Your task to perform on an android device: Go to battery settings Image 0: 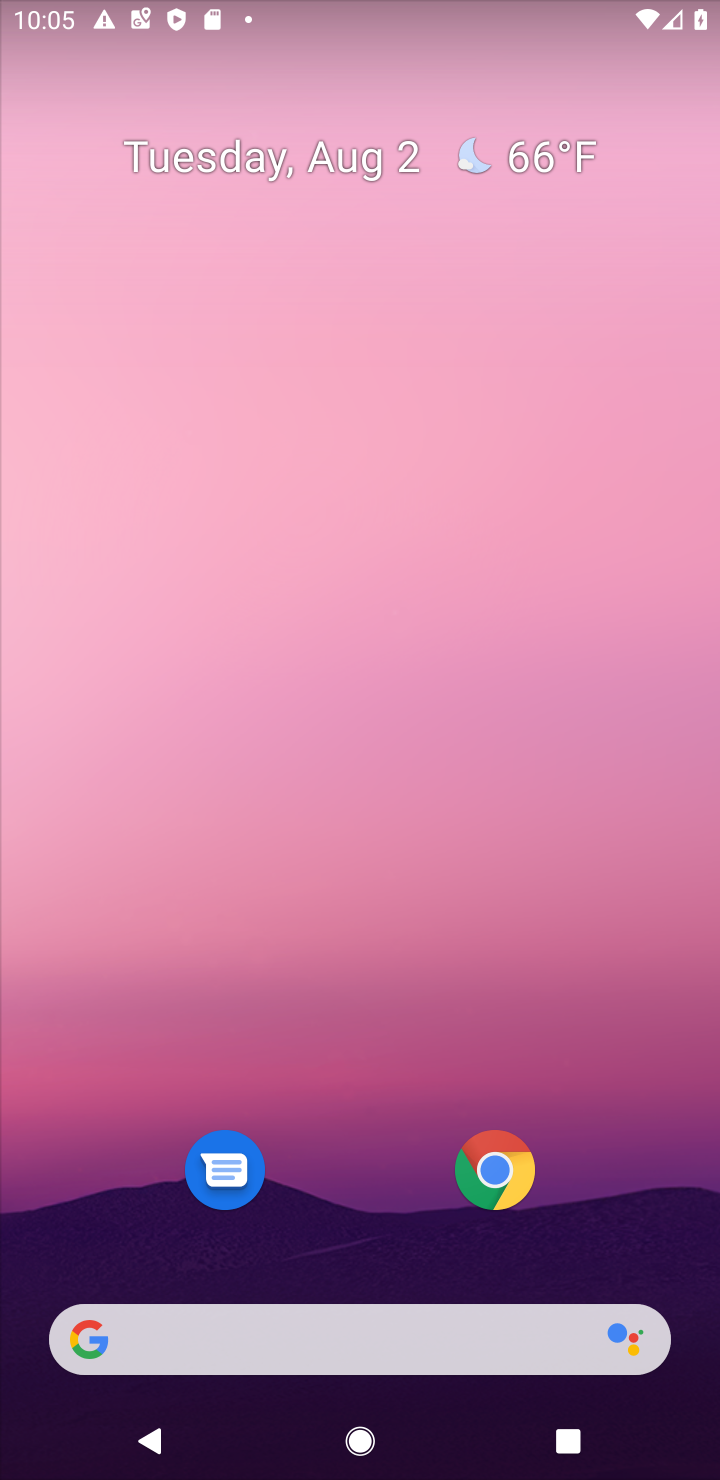
Step 0: drag from (312, 1198) to (322, 479)
Your task to perform on an android device: Go to battery settings Image 1: 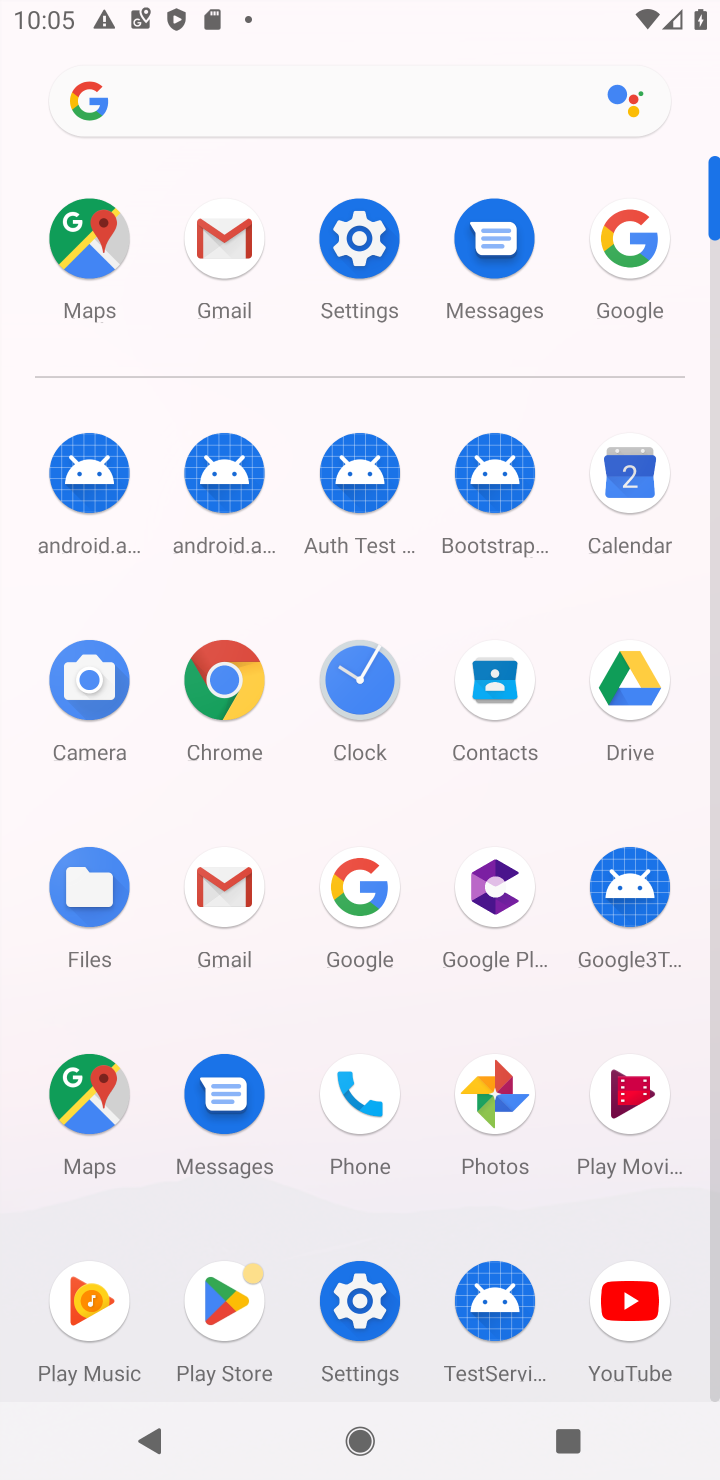
Step 1: click (351, 257)
Your task to perform on an android device: Go to battery settings Image 2: 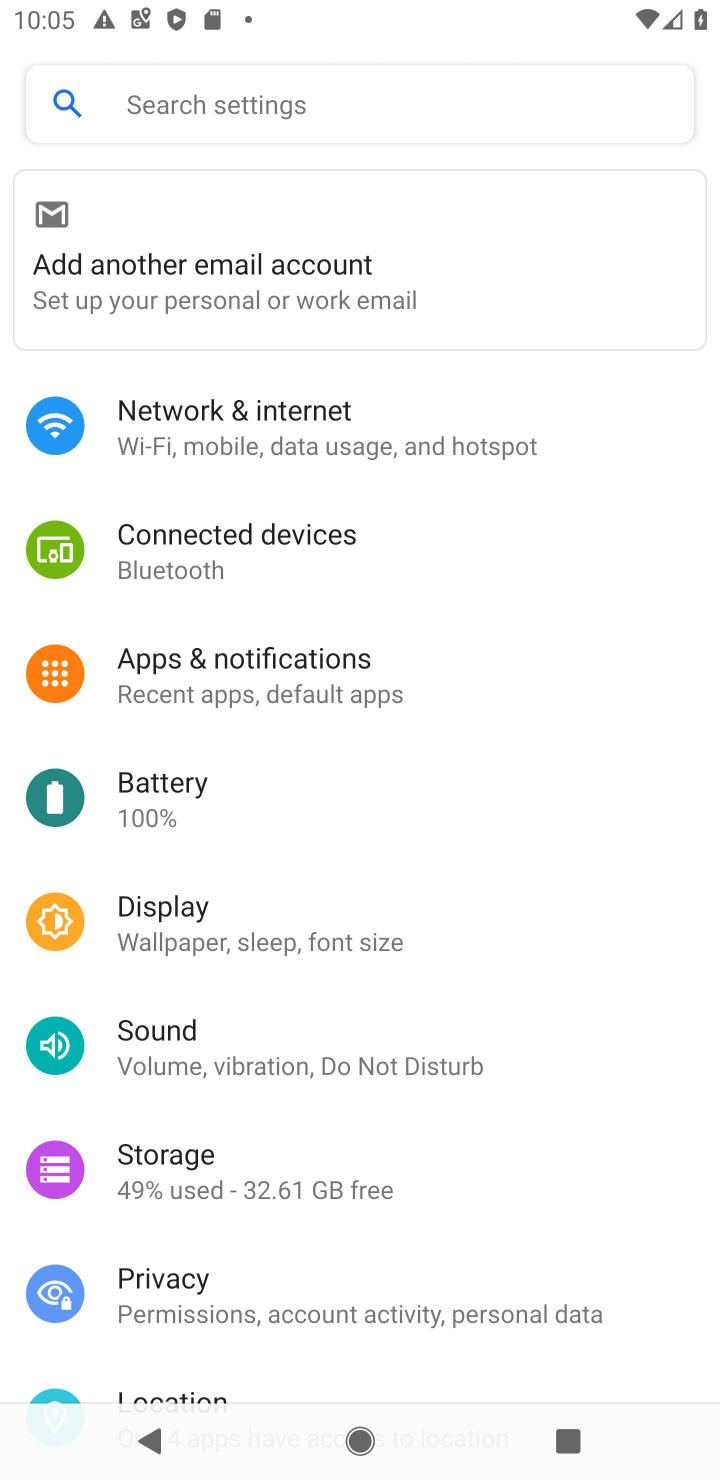
Step 2: click (162, 793)
Your task to perform on an android device: Go to battery settings Image 3: 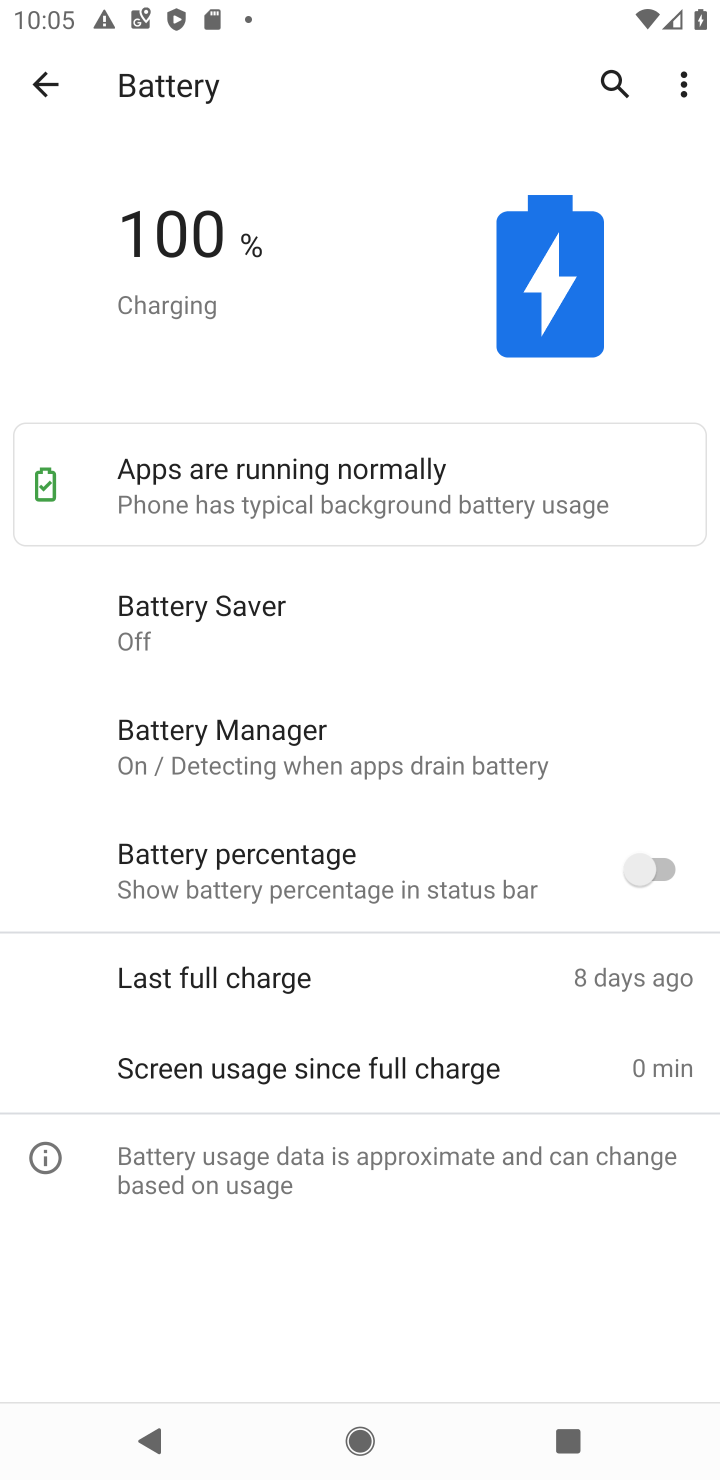
Step 3: task complete